Your task to perform on an android device: check data usage Image 0: 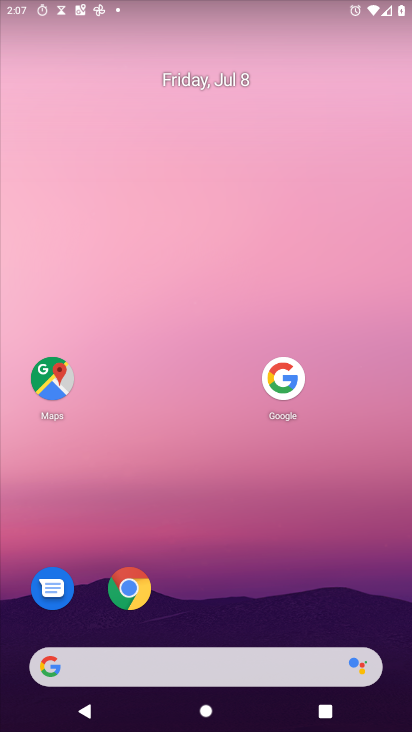
Step 0: drag from (235, 662) to (376, 35)
Your task to perform on an android device: check data usage Image 1: 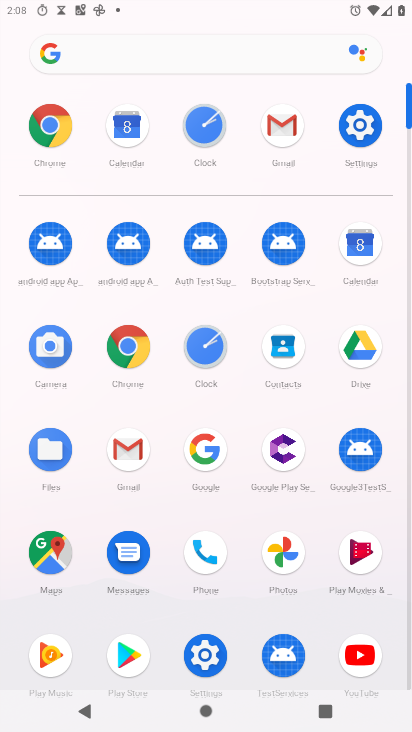
Step 1: click (366, 123)
Your task to perform on an android device: check data usage Image 2: 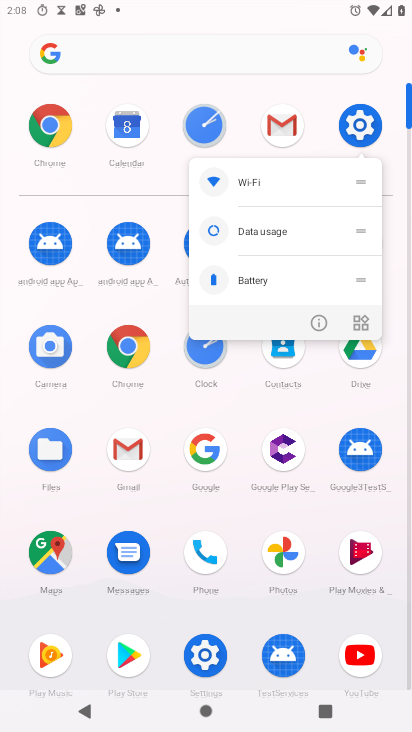
Step 2: click (357, 116)
Your task to perform on an android device: check data usage Image 3: 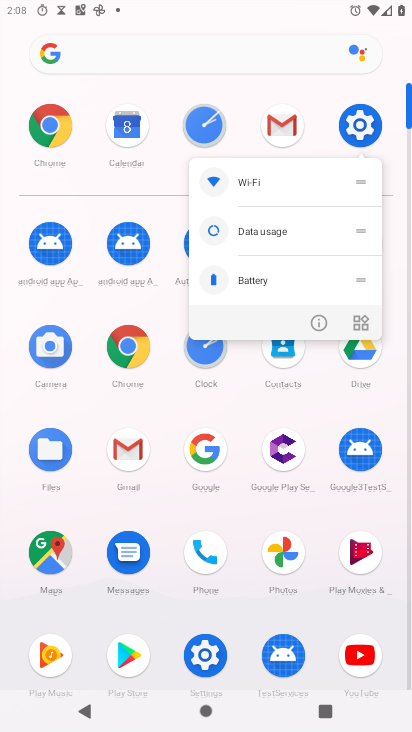
Step 3: click (361, 123)
Your task to perform on an android device: check data usage Image 4: 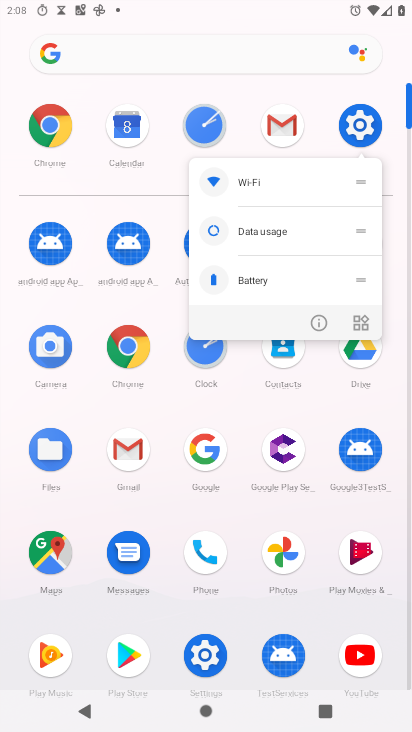
Step 4: click (361, 124)
Your task to perform on an android device: check data usage Image 5: 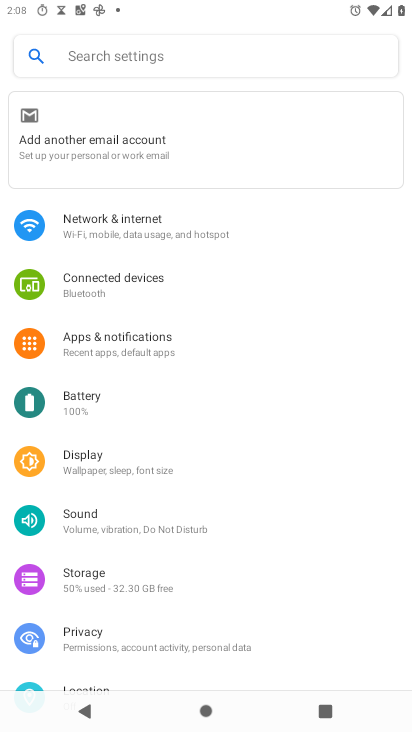
Step 5: click (143, 228)
Your task to perform on an android device: check data usage Image 6: 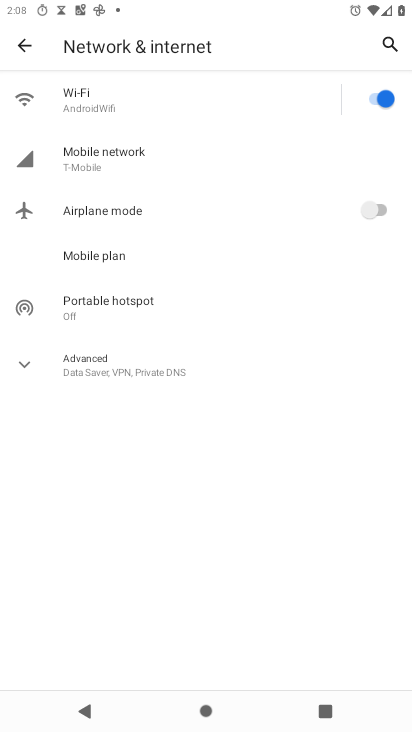
Step 6: click (89, 109)
Your task to perform on an android device: check data usage Image 7: 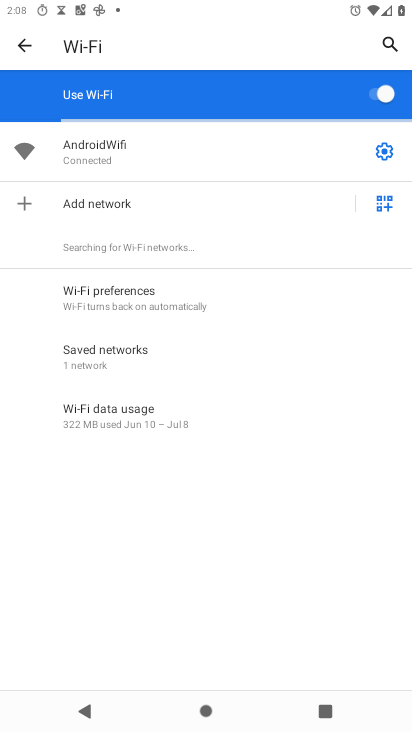
Step 7: click (163, 408)
Your task to perform on an android device: check data usage Image 8: 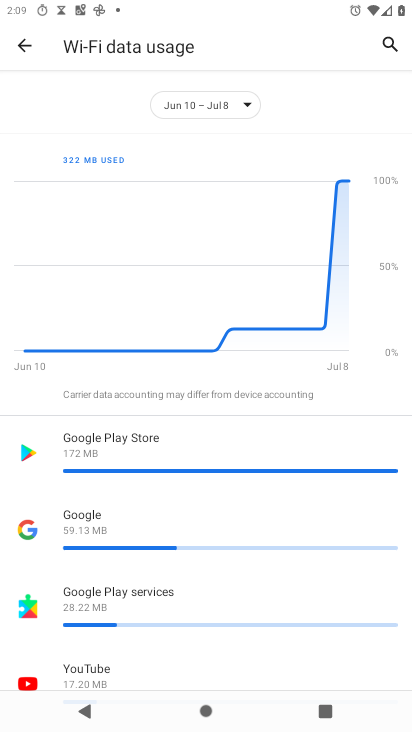
Step 8: task complete